Your task to perform on an android device: delete a single message in the gmail app Image 0: 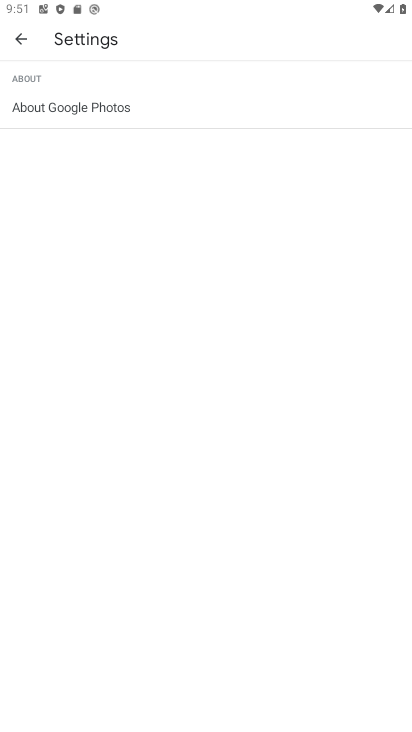
Step 0: click (15, 39)
Your task to perform on an android device: delete a single message in the gmail app Image 1: 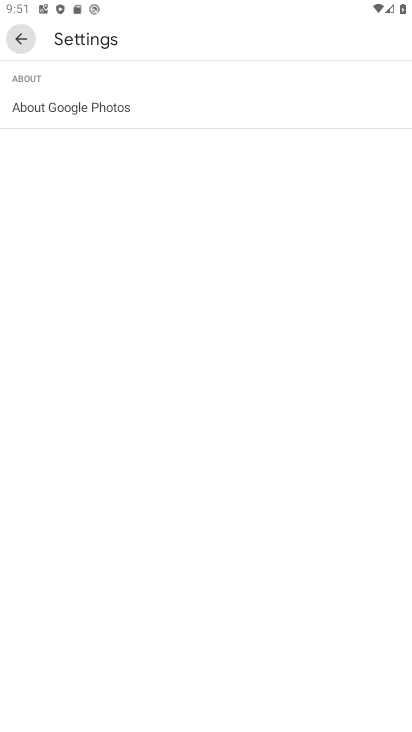
Step 1: click (15, 39)
Your task to perform on an android device: delete a single message in the gmail app Image 2: 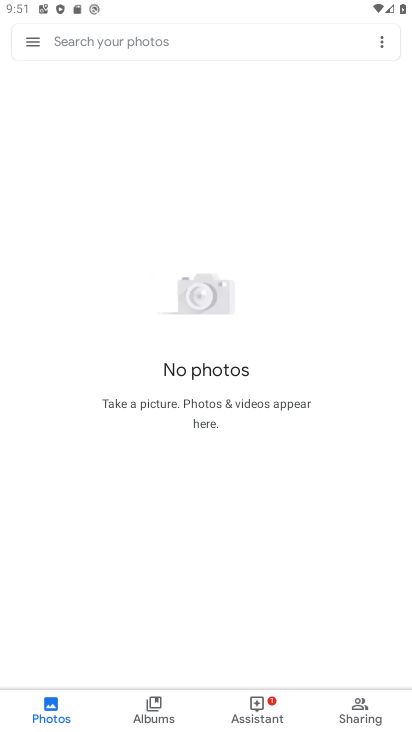
Step 2: press back button
Your task to perform on an android device: delete a single message in the gmail app Image 3: 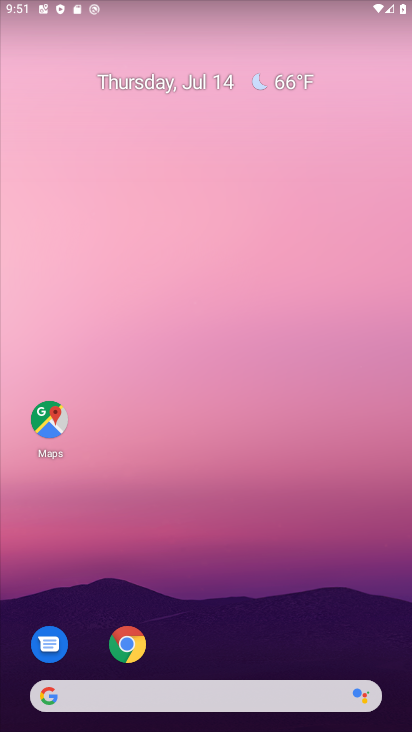
Step 3: drag from (233, 553) to (172, 229)
Your task to perform on an android device: delete a single message in the gmail app Image 4: 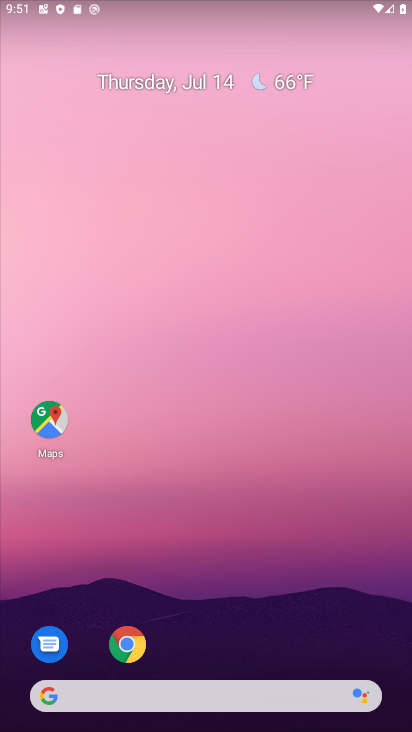
Step 4: drag from (292, 653) to (295, 135)
Your task to perform on an android device: delete a single message in the gmail app Image 5: 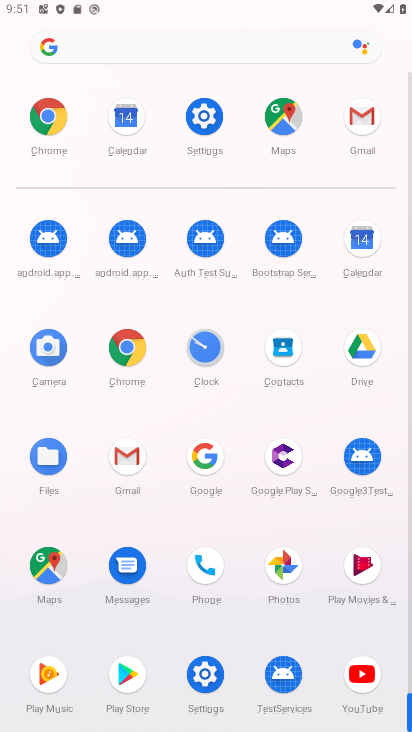
Step 5: click (132, 455)
Your task to perform on an android device: delete a single message in the gmail app Image 6: 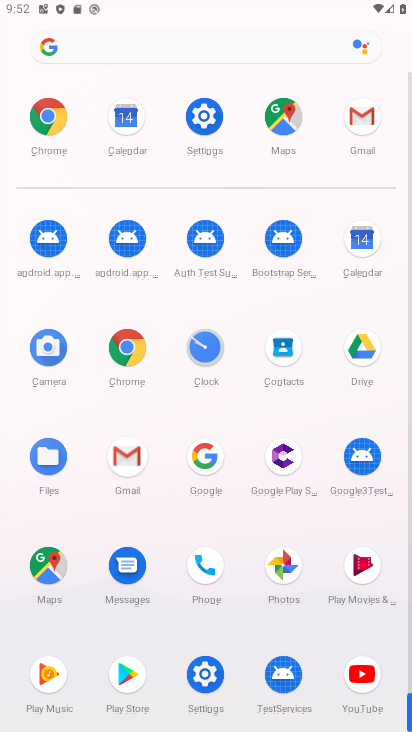
Step 6: click (132, 455)
Your task to perform on an android device: delete a single message in the gmail app Image 7: 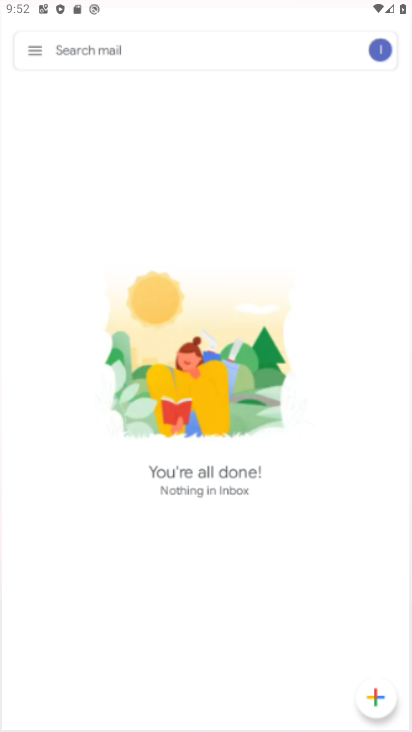
Step 7: click (135, 457)
Your task to perform on an android device: delete a single message in the gmail app Image 8: 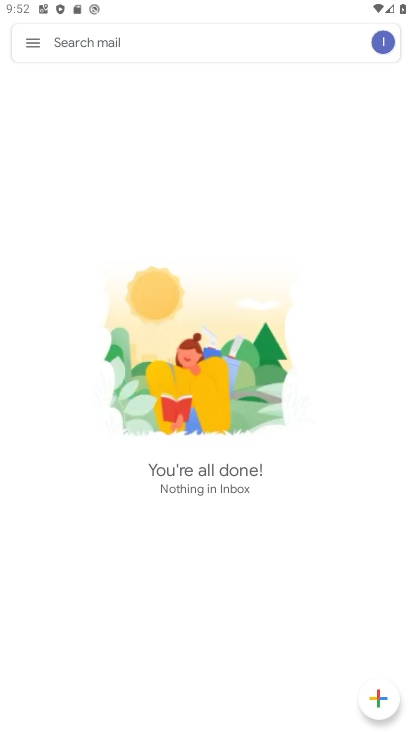
Step 8: click (136, 456)
Your task to perform on an android device: delete a single message in the gmail app Image 9: 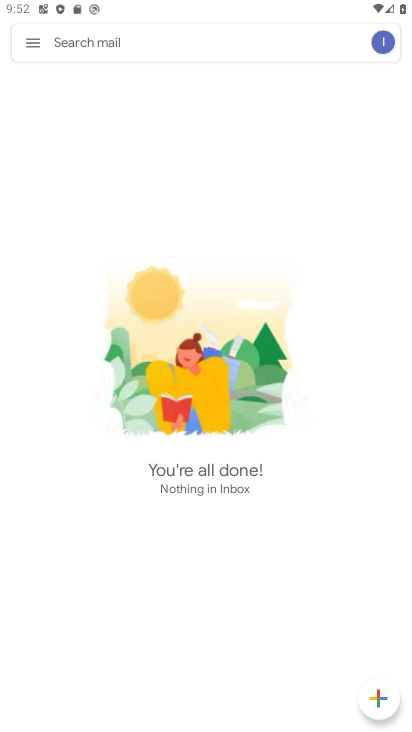
Step 9: press home button
Your task to perform on an android device: delete a single message in the gmail app Image 10: 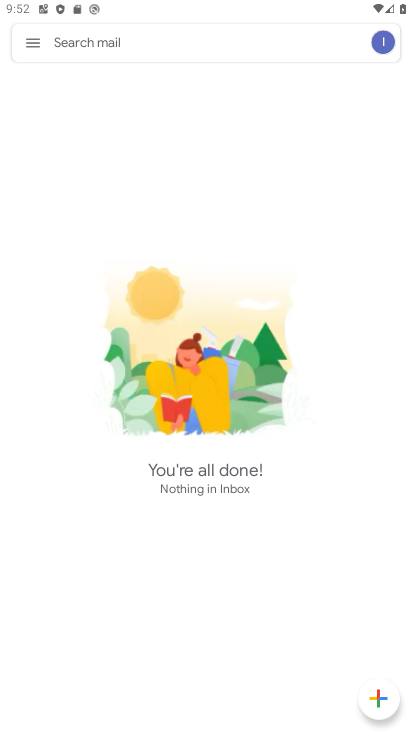
Step 10: press home button
Your task to perform on an android device: delete a single message in the gmail app Image 11: 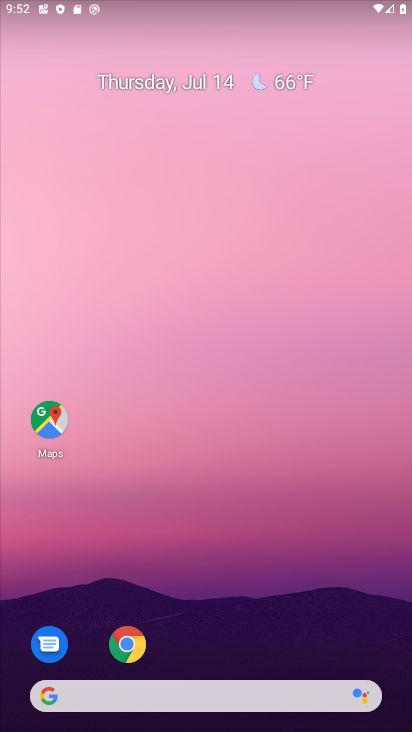
Step 11: drag from (224, 581) to (135, 98)
Your task to perform on an android device: delete a single message in the gmail app Image 12: 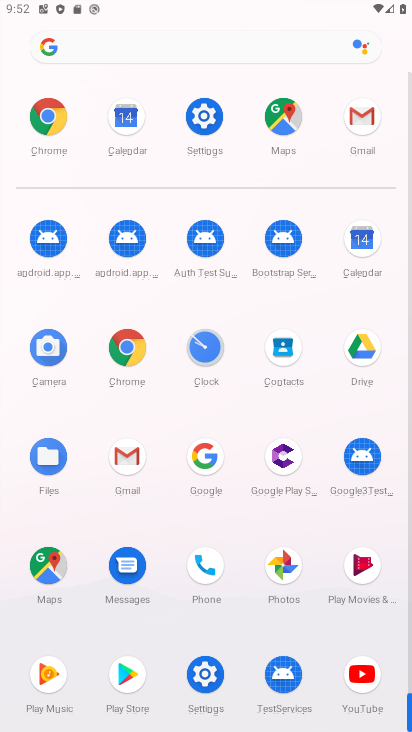
Step 12: click (124, 452)
Your task to perform on an android device: delete a single message in the gmail app Image 13: 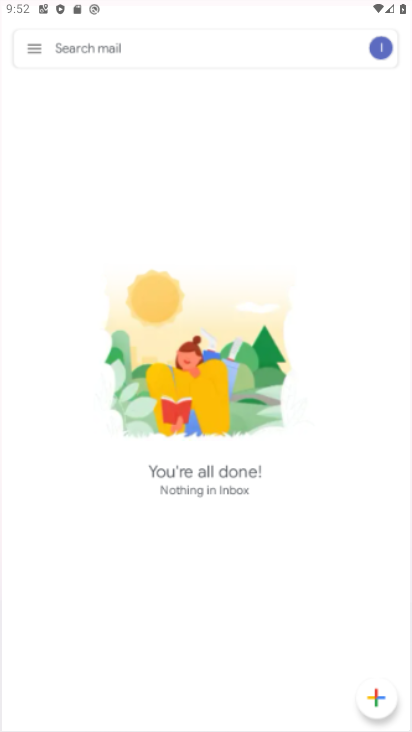
Step 13: click (137, 460)
Your task to perform on an android device: delete a single message in the gmail app Image 14: 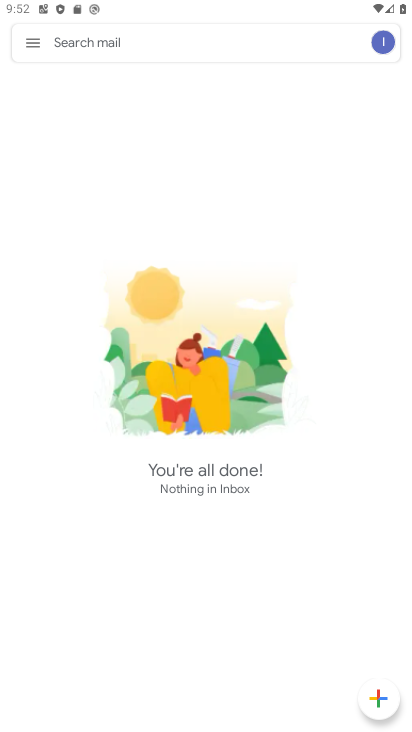
Step 14: click (146, 456)
Your task to perform on an android device: delete a single message in the gmail app Image 15: 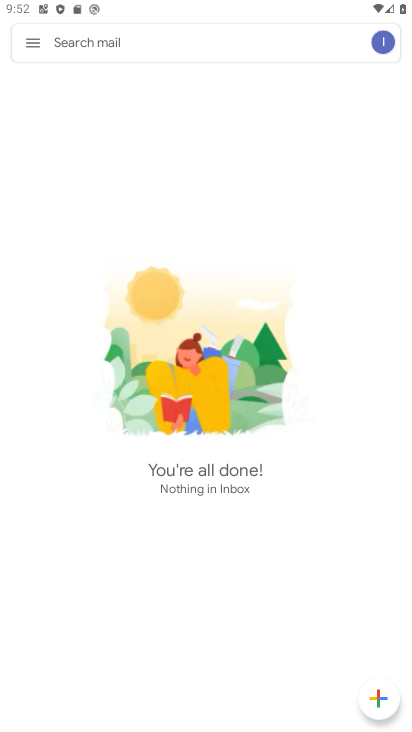
Step 15: click (36, 38)
Your task to perform on an android device: delete a single message in the gmail app Image 16: 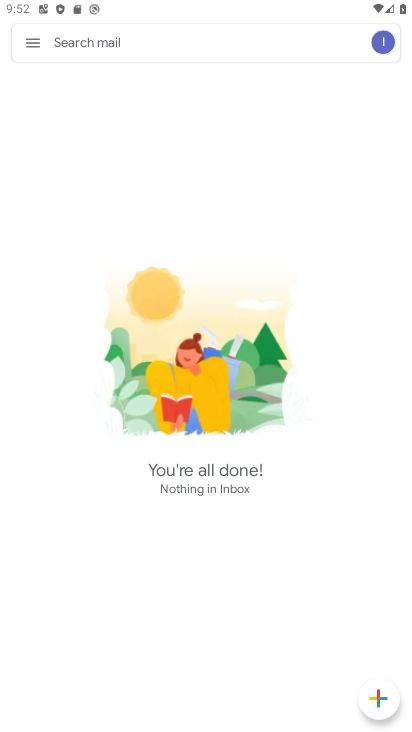
Step 16: click (35, 40)
Your task to perform on an android device: delete a single message in the gmail app Image 17: 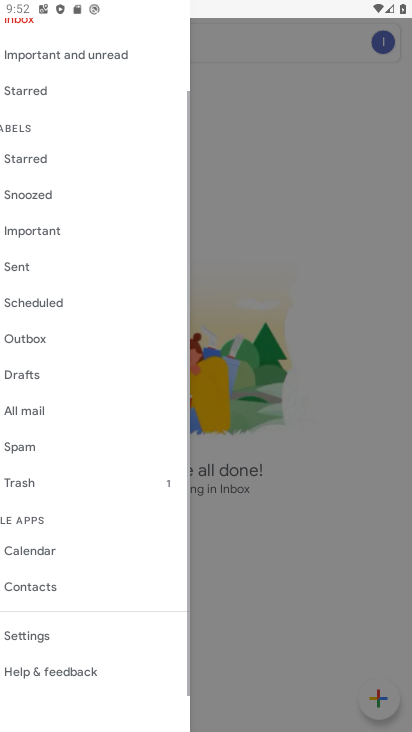
Step 17: click (35, 40)
Your task to perform on an android device: delete a single message in the gmail app Image 18: 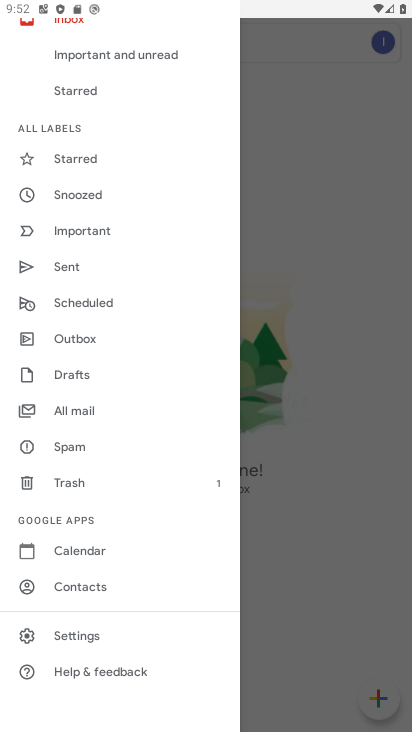
Step 18: click (70, 409)
Your task to perform on an android device: delete a single message in the gmail app Image 19: 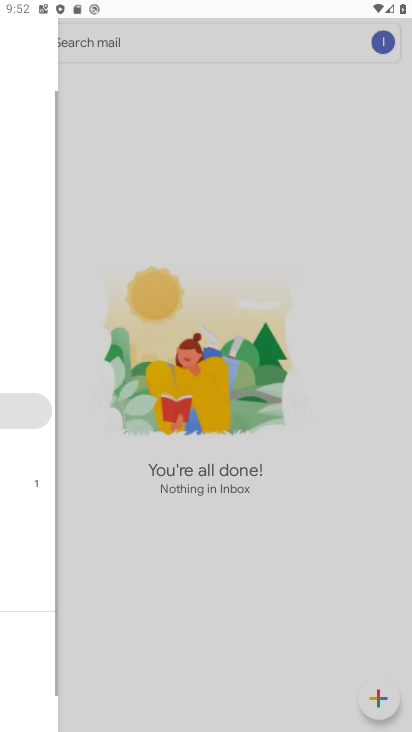
Step 19: click (73, 409)
Your task to perform on an android device: delete a single message in the gmail app Image 20: 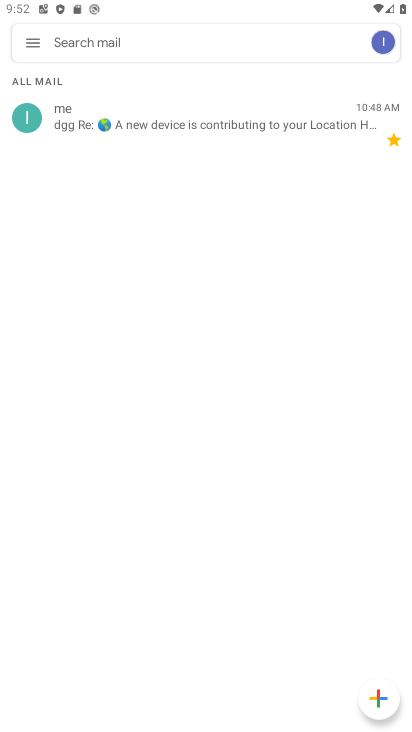
Step 20: click (218, 125)
Your task to perform on an android device: delete a single message in the gmail app Image 21: 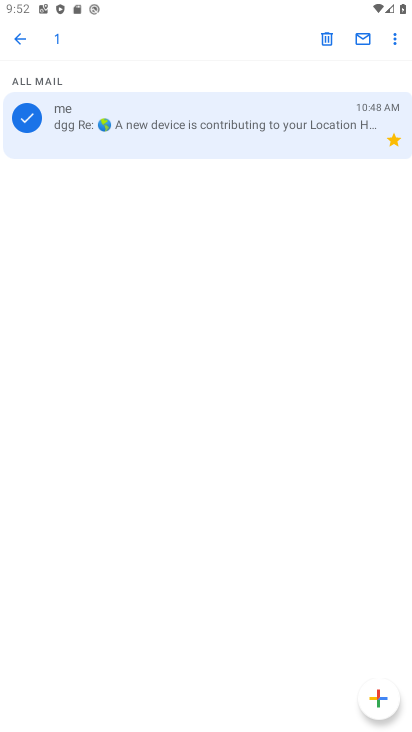
Step 21: click (324, 34)
Your task to perform on an android device: delete a single message in the gmail app Image 22: 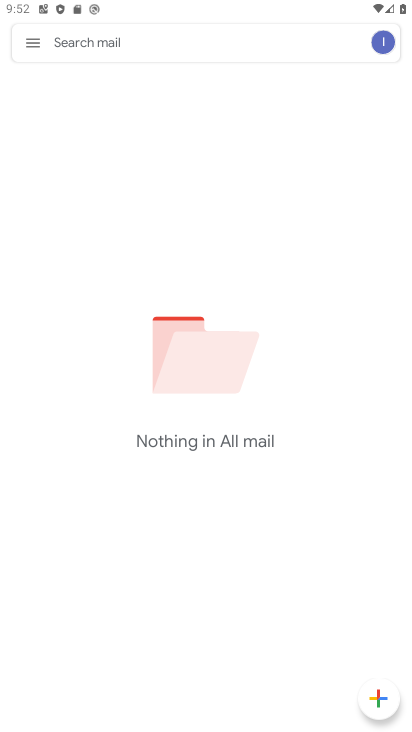
Step 22: task complete